Your task to perform on an android device: Do I have any events today? Image 0: 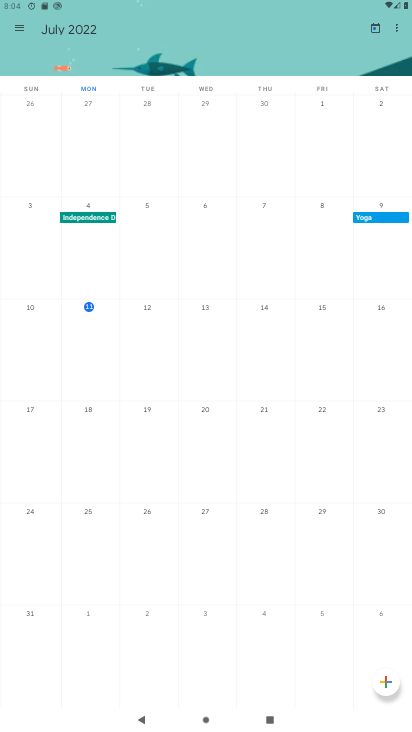
Step 0: click (94, 315)
Your task to perform on an android device: Do I have any events today? Image 1: 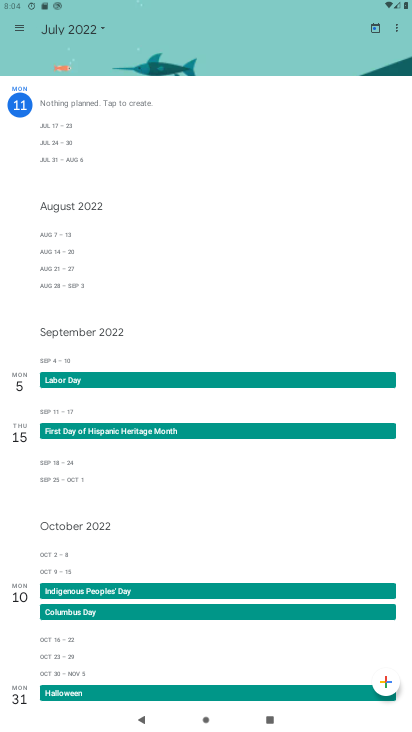
Step 1: task complete